Your task to perform on an android device: check out phone information Image 0: 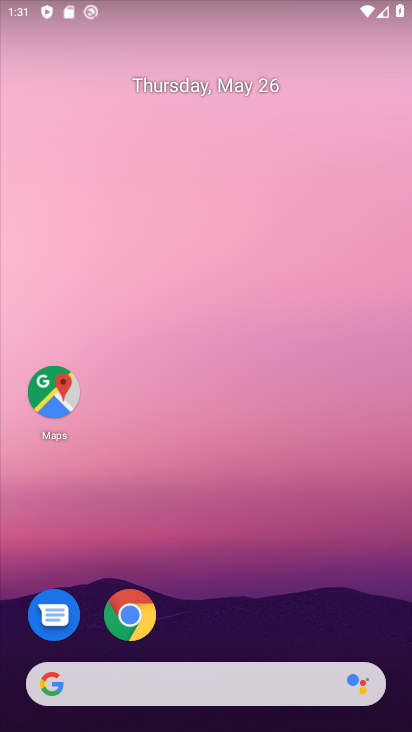
Step 0: drag from (387, 548) to (387, 178)
Your task to perform on an android device: check out phone information Image 1: 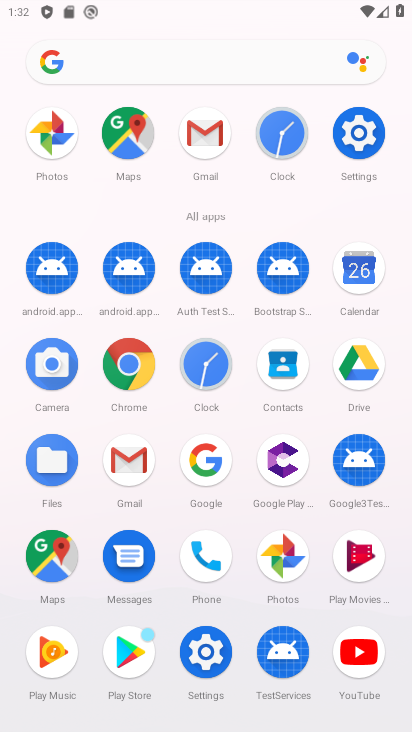
Step 1: click (213, 577)
Your task to perform on an android device: check out phone information Image 2: 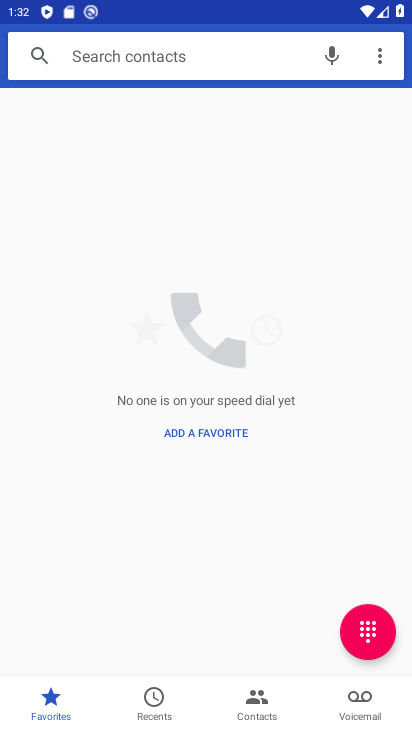
Step 2: task complete